Your task to perform on an android device: Open Wikipedia Image 0: 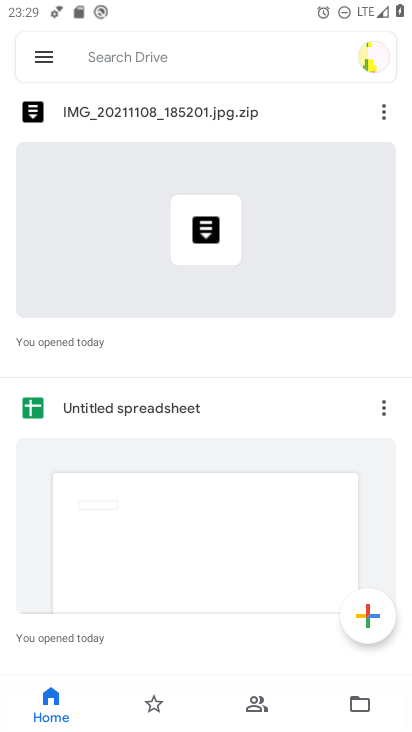
Step 0: press home button
Your task to perform on an android device: Open Wikipedia Image 1: 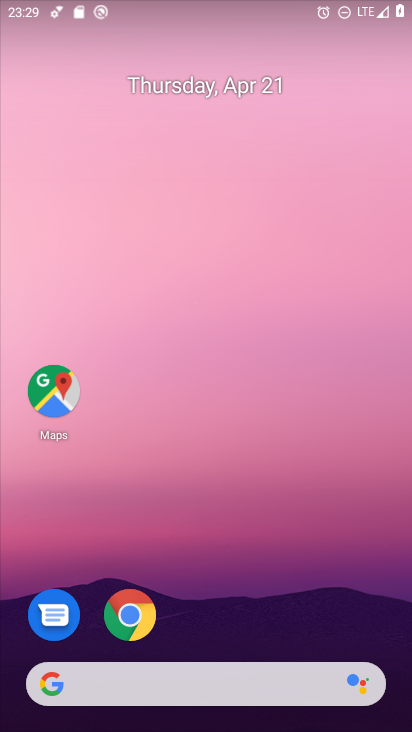
Step 1: drag from (211, 630) to (206, 92)
Your task to perform on an android device: Open Wikipedia Image 2: 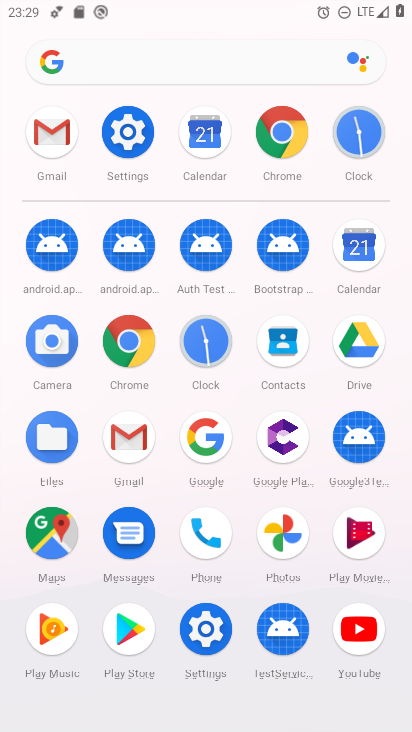
Step 2: click (127, 334)
Your task to perform on an android device: Open Wikipedia Image 3: 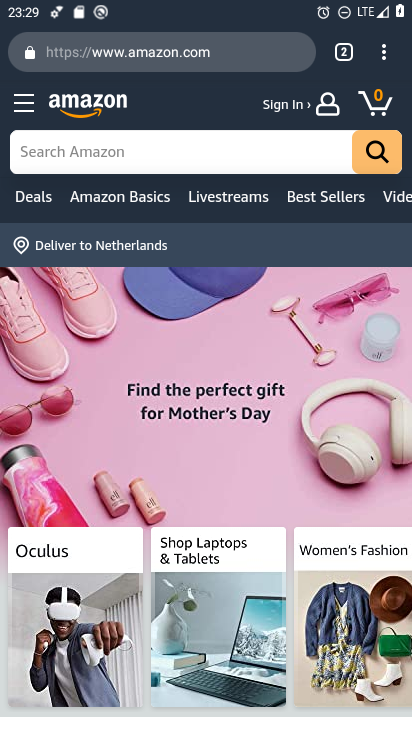
Step 3: click (346, 45)
Your task to perform on an android device: Open Wikipedia Image 4: 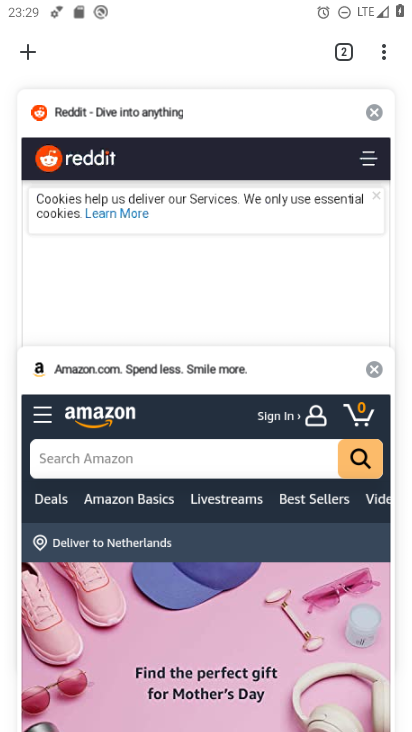
Step 4: click (373, 107)
Your task to perform on an android device: Open Wikipedia Image 5: 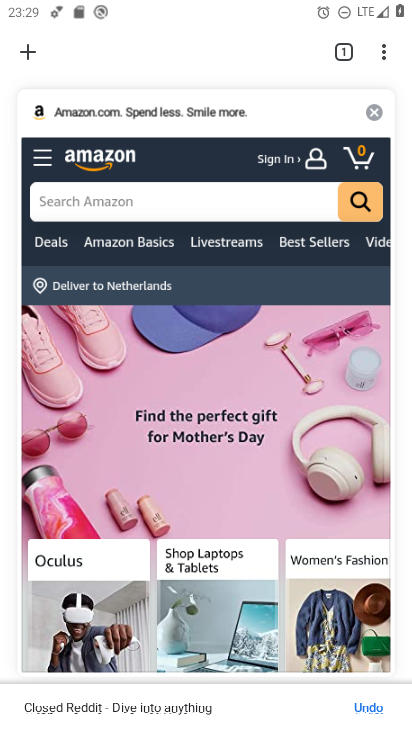
Step 5: click (373, 107)
Your task to perform on an android device: Open Wikipedia Image 6: 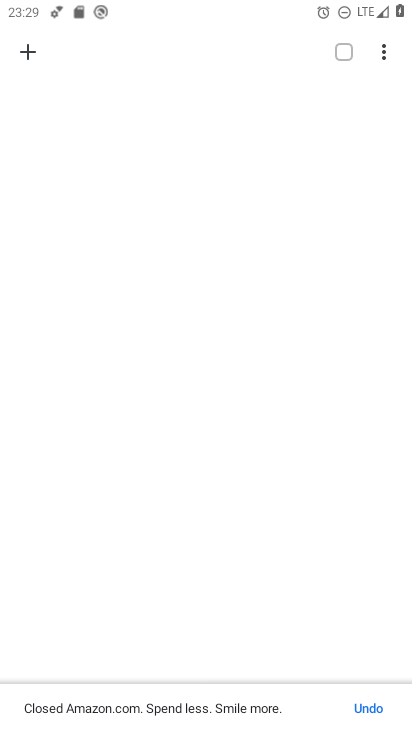
Step 6: click (30, 52)
Your task to perform on an android device: Open Wikipedia Image 7: 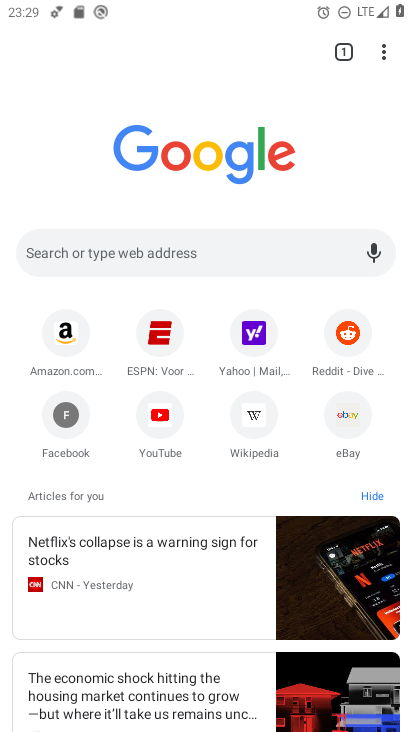
Step 7: click (252, 415)
Your task to perform on an android device: Open Wikipedia Image 8: 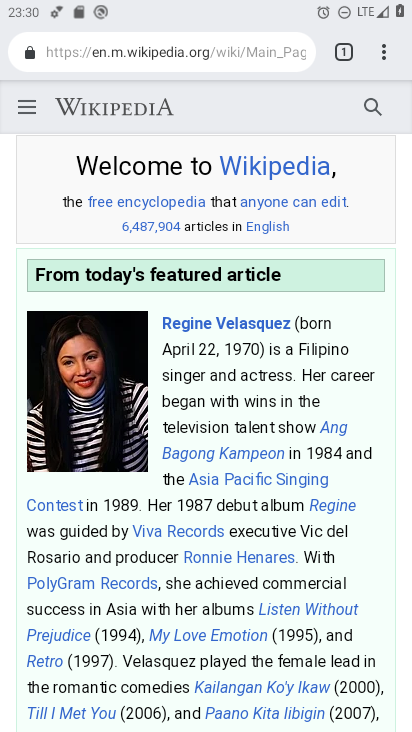
Step 8: task complete